Your task to perform on an android device: Open the calendar Image 0: 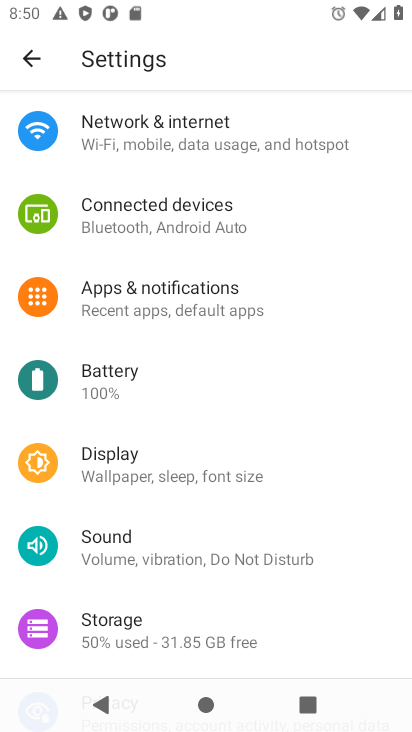
Step 0: press home button
Your task to perform on an android device: Open the calendar Image 1: 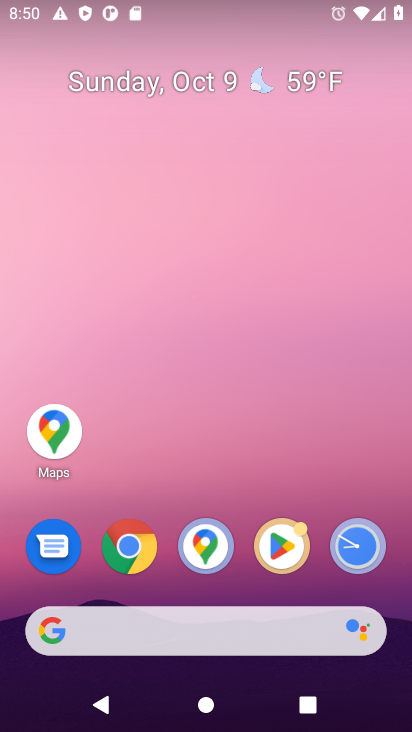
Step 1: drag from (170, 637) to (165, 307)
Your task to perform on an android device: Open the calendar Image 2: 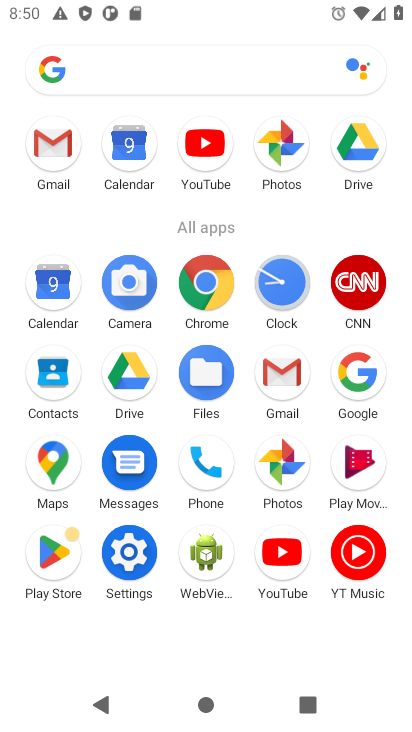
Step 2: drag from (259, 504) to (254, 433)
Your task to perform on an android device: Open the calendar Image 3: 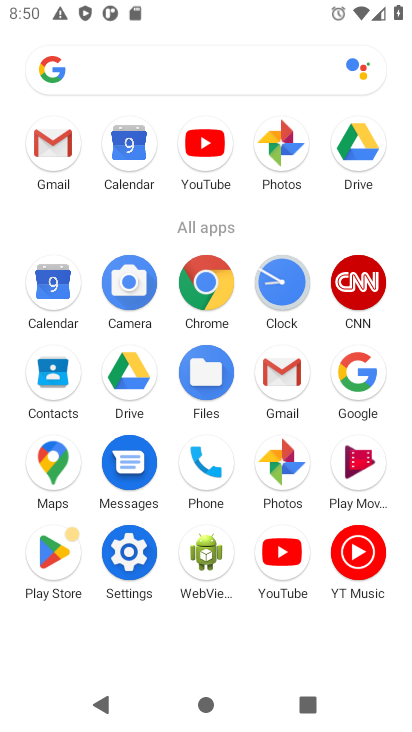
Step 3: click (182, 71)
Your task to perform on an android device: Open the calendar Image 4: 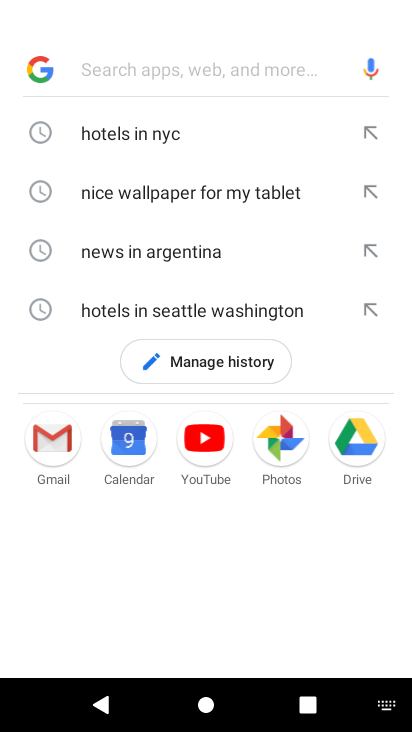
Step 4: press home button
Your task to perform on an android device: Open the calendar Image 5: 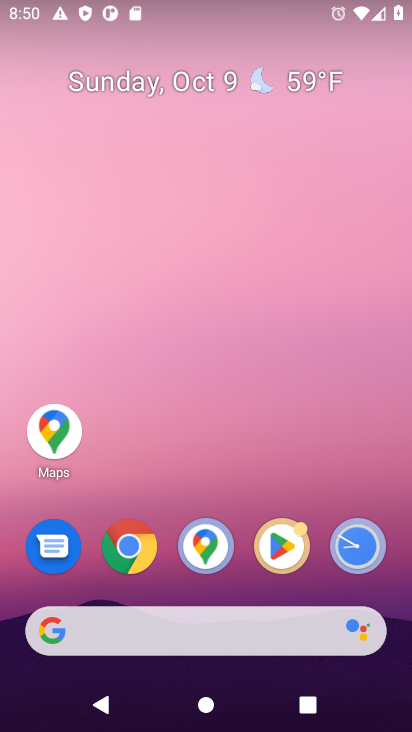
Step 5: drag from (260, 621) to (231, 268)
Your task to perform on an android device: Open the calendar Image 6: 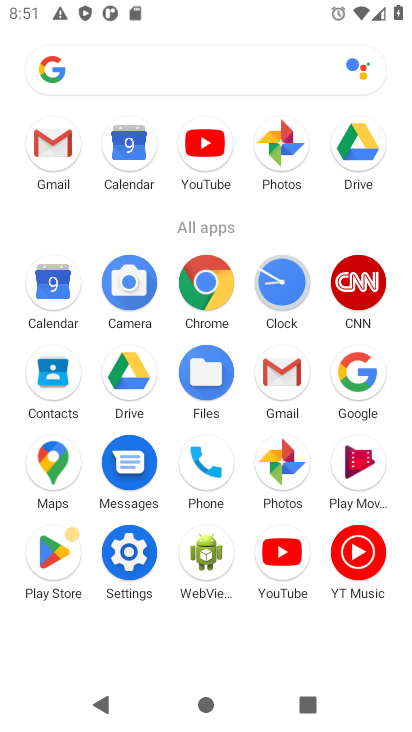
Step 6: press home button
Your task to perform on an android device: Open the calendar Image 7: 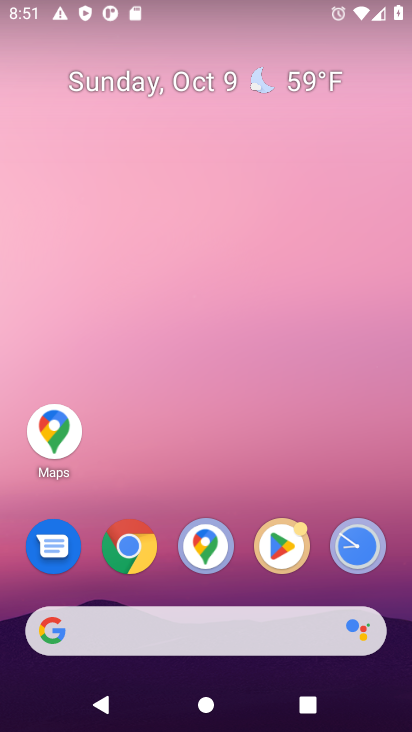
Step 7: click (278, 555)
Your task to perform on an android device: Open the calendar Image 8: 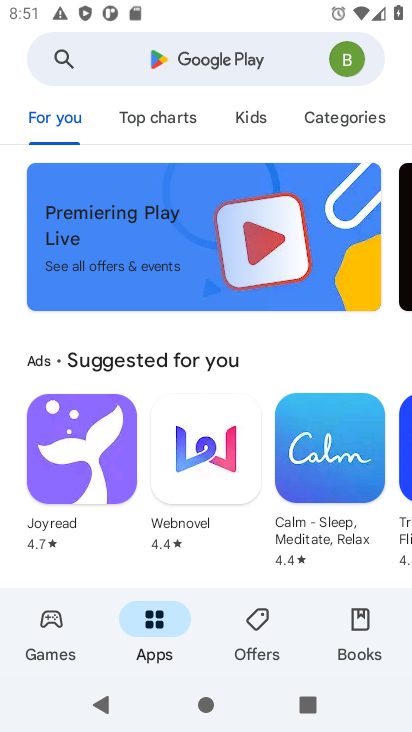
Step 8: click (161, 57)
Your task to perform on an android device: Open the calendar Image 9: 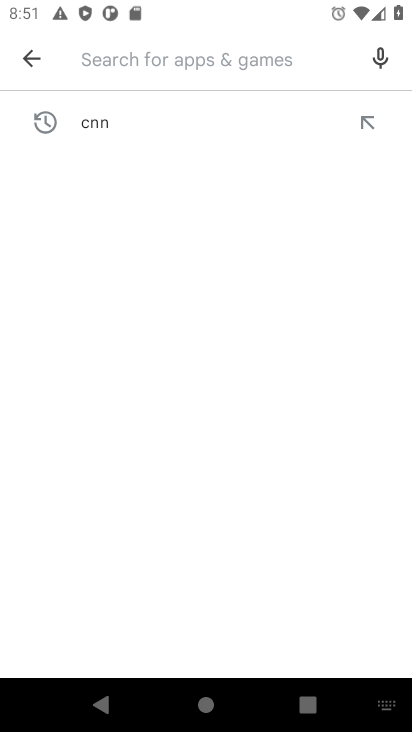
Step 9: type "calculator"
Your task to perform on an android device: Open the calendar Image 10: 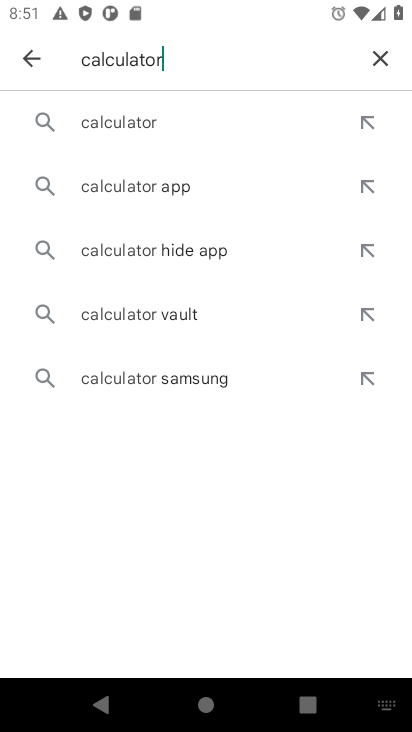
Step 10: type ""
Your task to perform on an android device: Open the calendar Image 11: 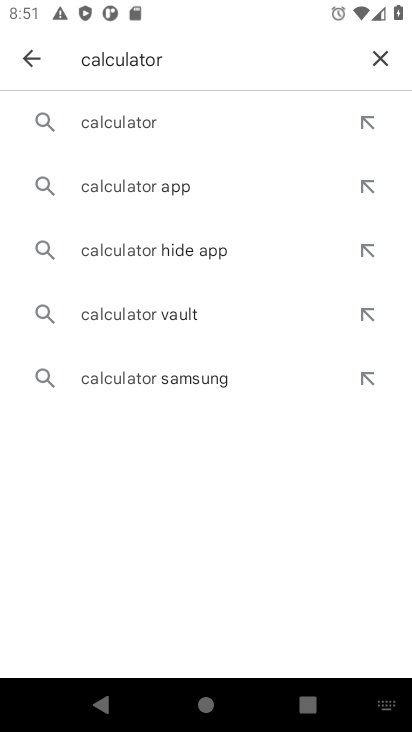
Step 11: click (201, 129)
Your task to perform on an android device: Open the calendar Image 12: 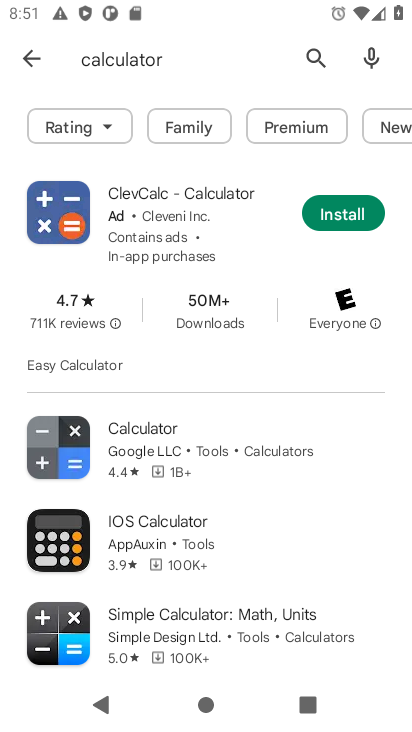
Step 12: task complete